Your task to perform on an android device: Open the map Image 0: 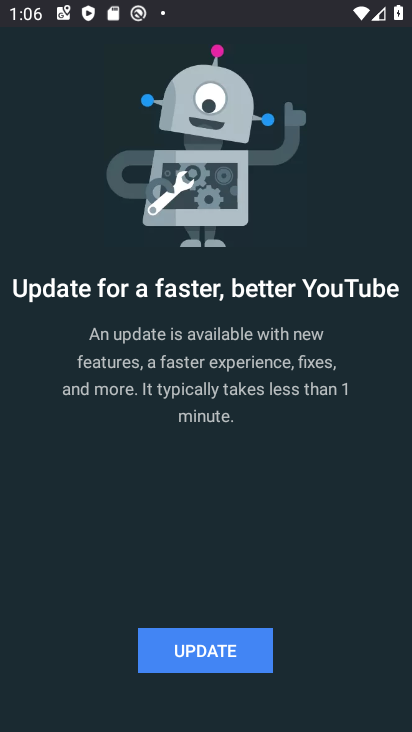
Step 0: press back button
Your task to perform on an android device: Open the map Image 1: 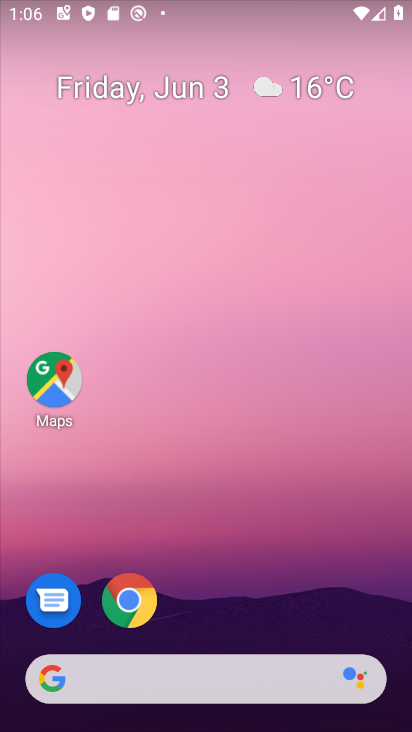
Step 1: click (37, 392)
Your task to perform on an android device: Open the map Image 2: 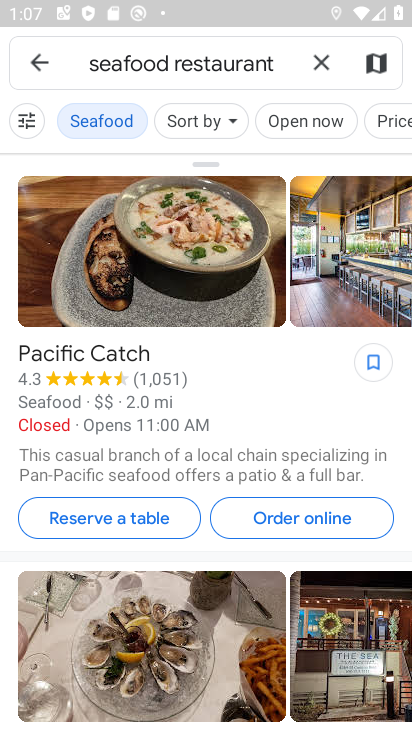
Step 2: task complete